Your task to perform on an android device: uninstall "Indeed Job Search" Image 0: 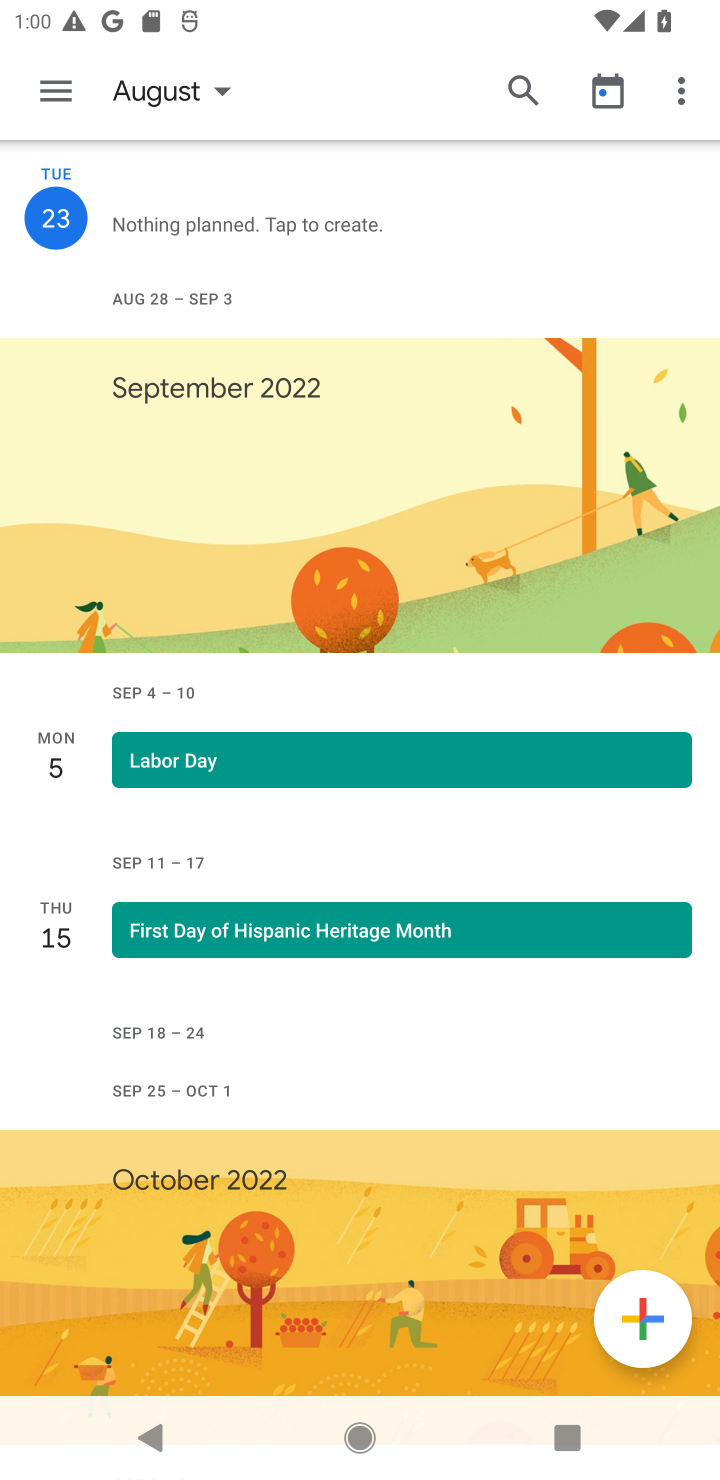
Step 0: press home button
Your task to perform on an android device: uninstall "Indeed Job Search" Image 1: 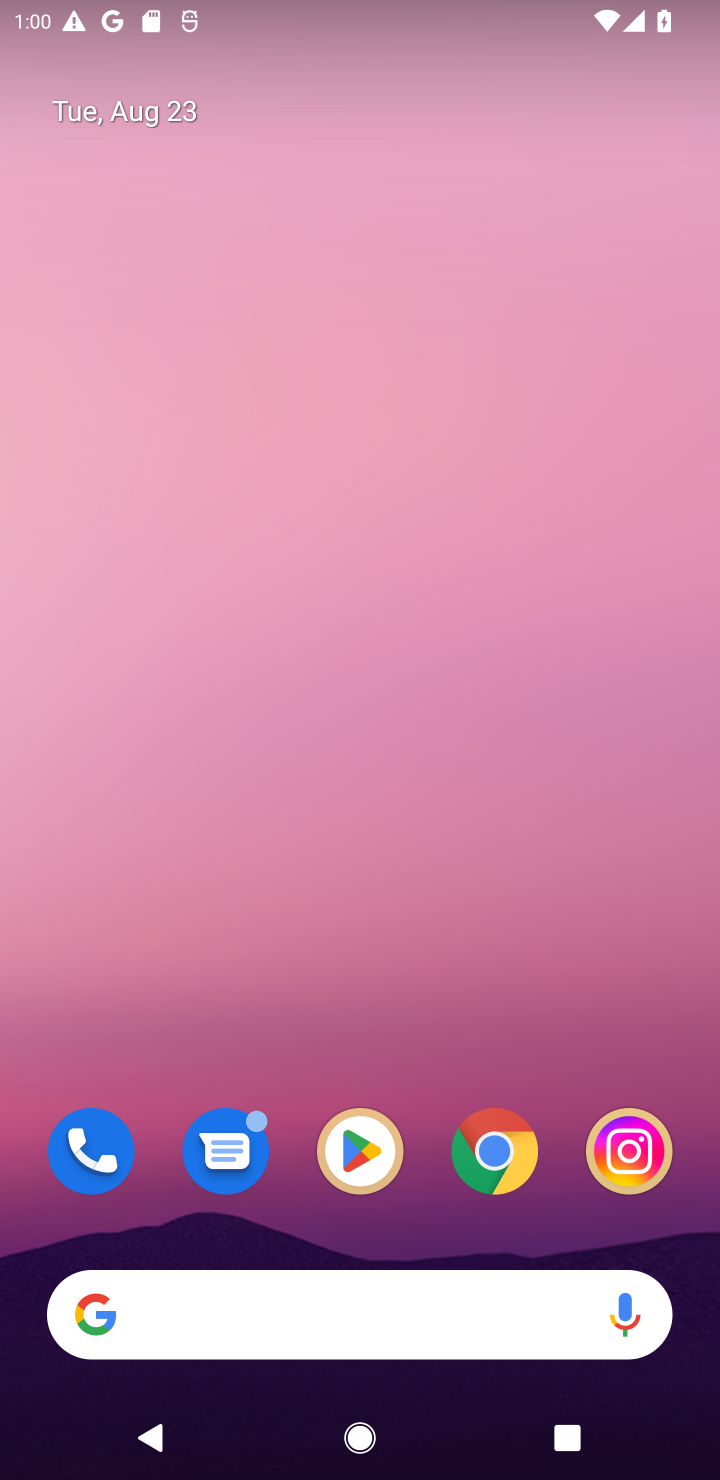
Step 1: click (343, 1135)
Your task to perform on an android device: uninstall "Indeed Job Search" Image 2: 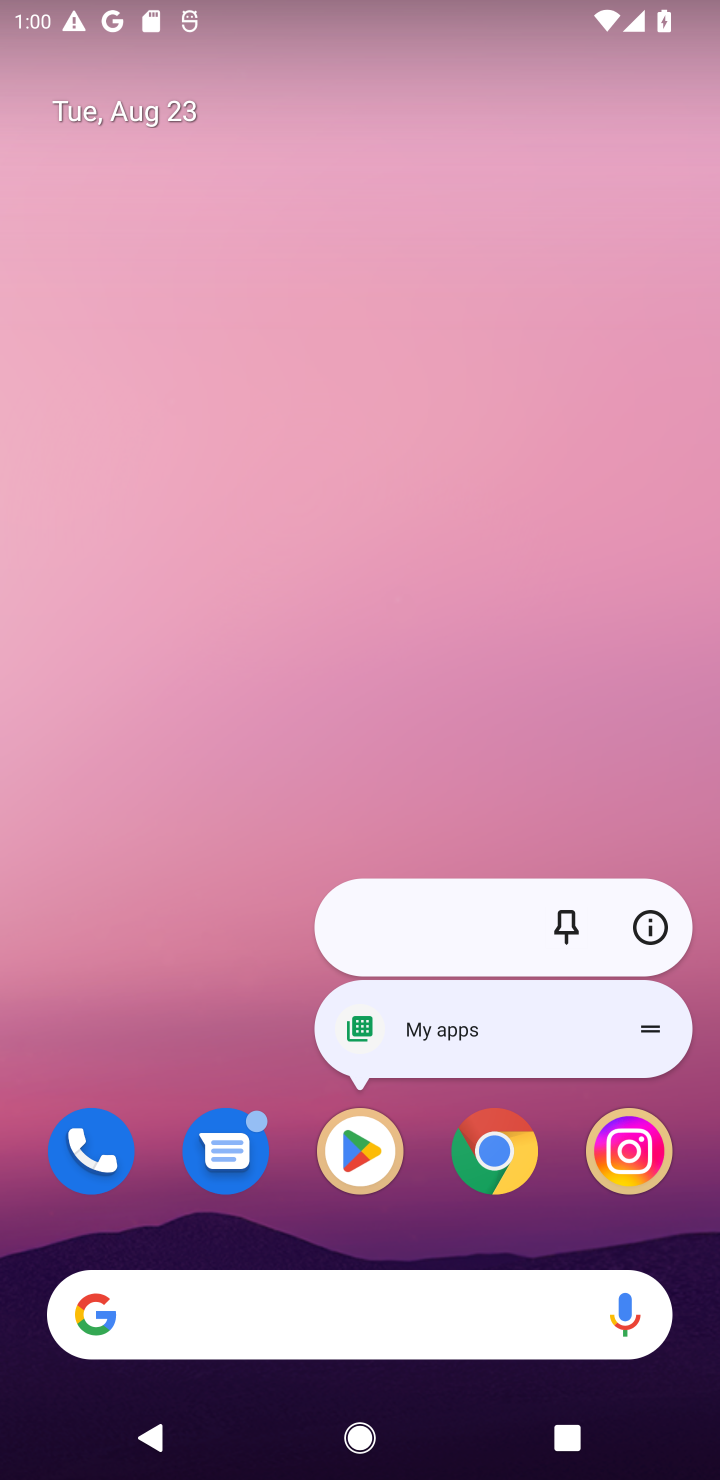
Step 2: click (349, 1156)
Your task to perform on an android device: uninstall "Indeed Job Search" Image 3: 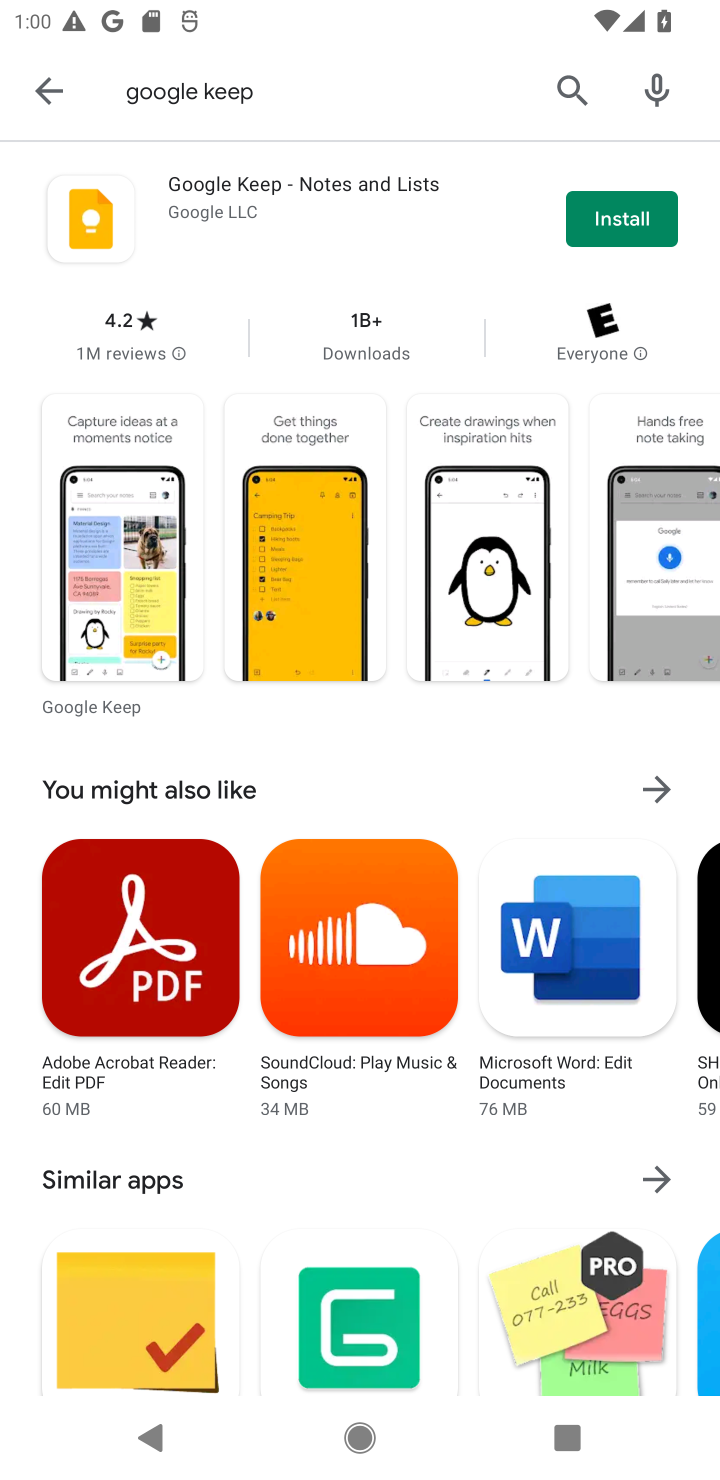
Step 3: click (576, 99)
Your task to perform on an android device: uninstall "Indeed Job Search" Image 4: 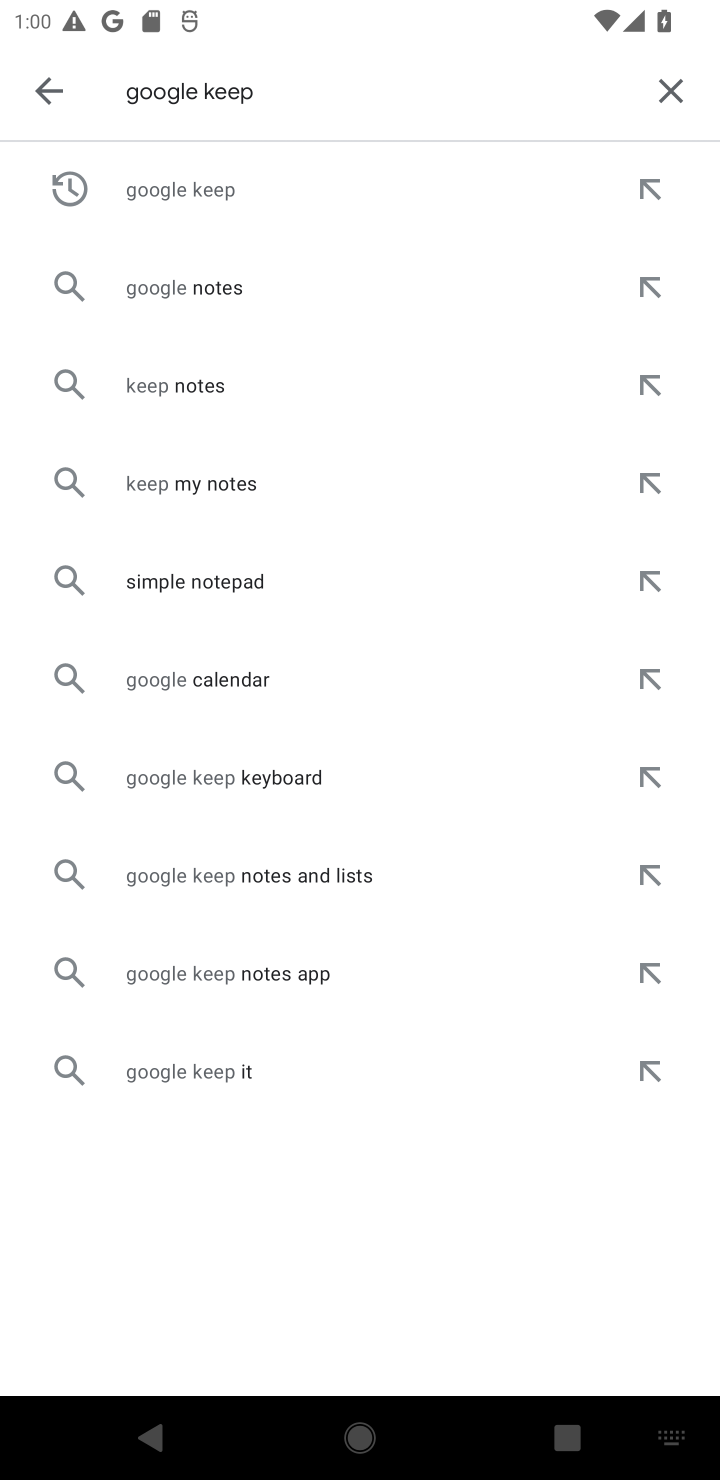
Step 4: click (672, 99)
Your task to perform on an android device: uninstall "Indeed Job Search" Image 5: 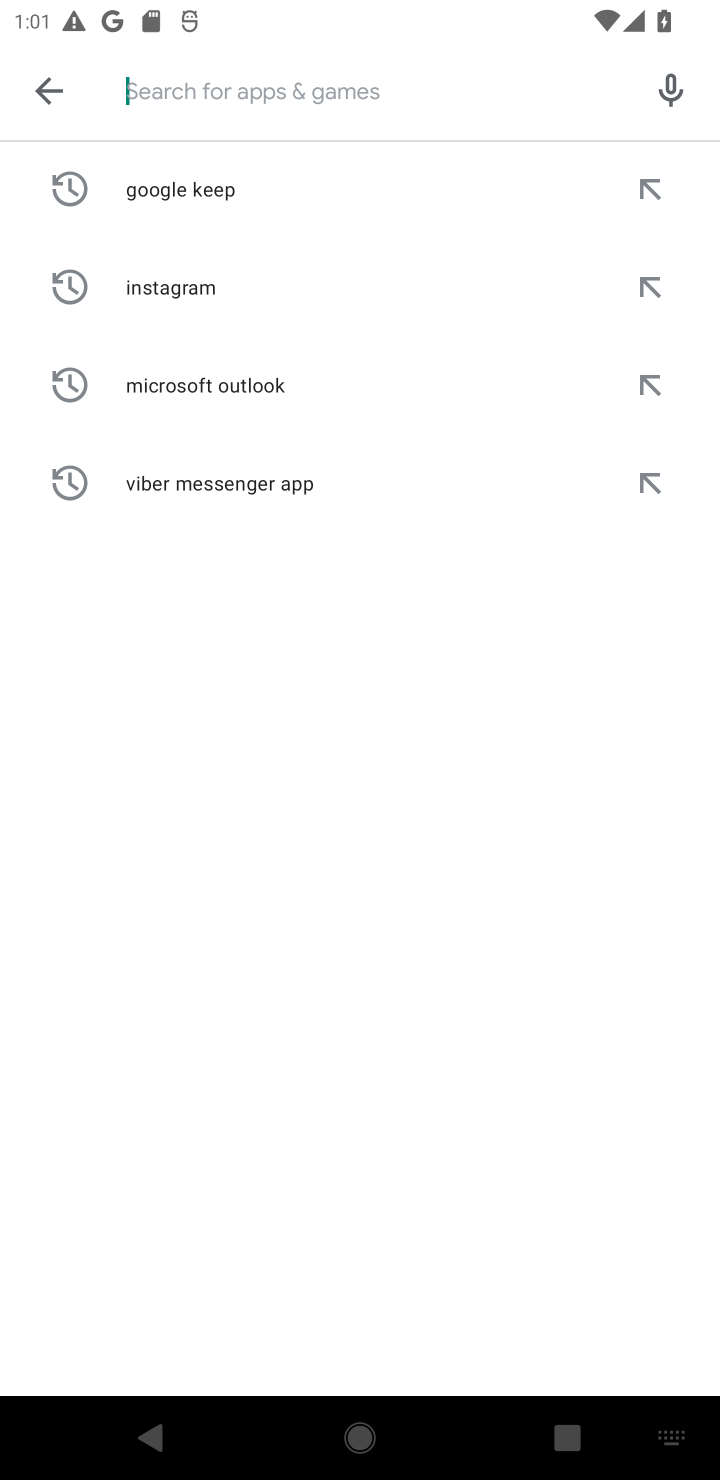
Step 5: type "Indeed Job Search"
Your task to perform on an android device: uninstall "Indeed Job Search" Image 6: 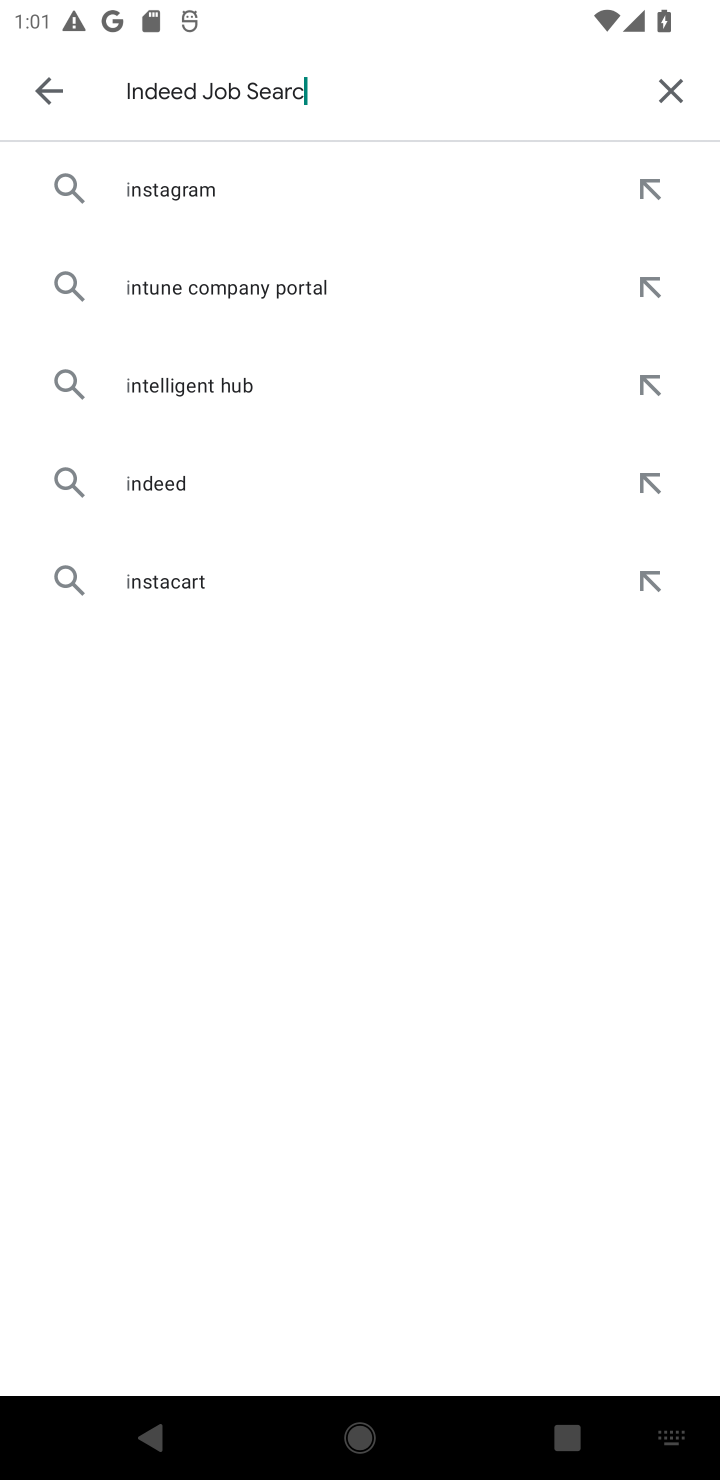
Step 6: type ""
Your task to perform on an android device: uninstall "Indeed Job Search" Image 7: 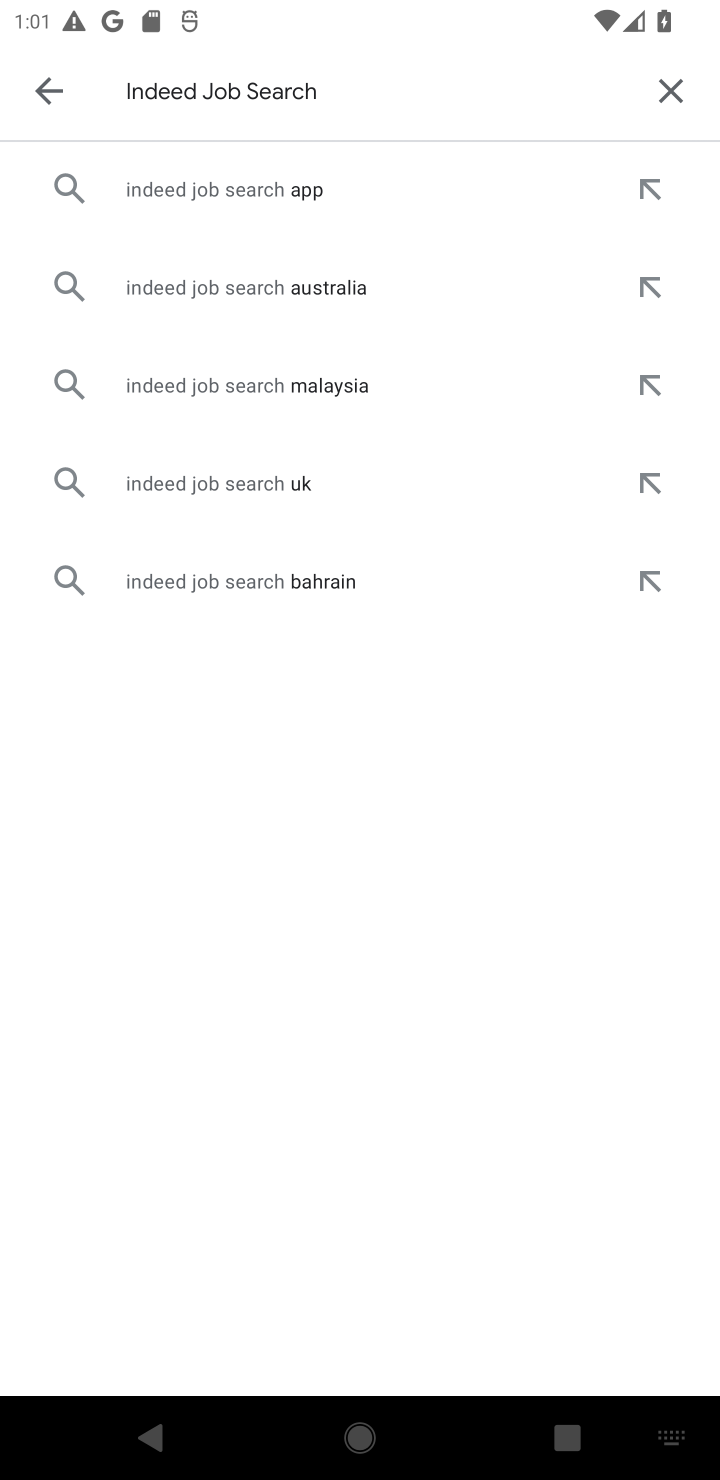
Step 7: click (310, 205)
Your task to perform on an android device: uninstall "Indeed Job Search" Image 8: 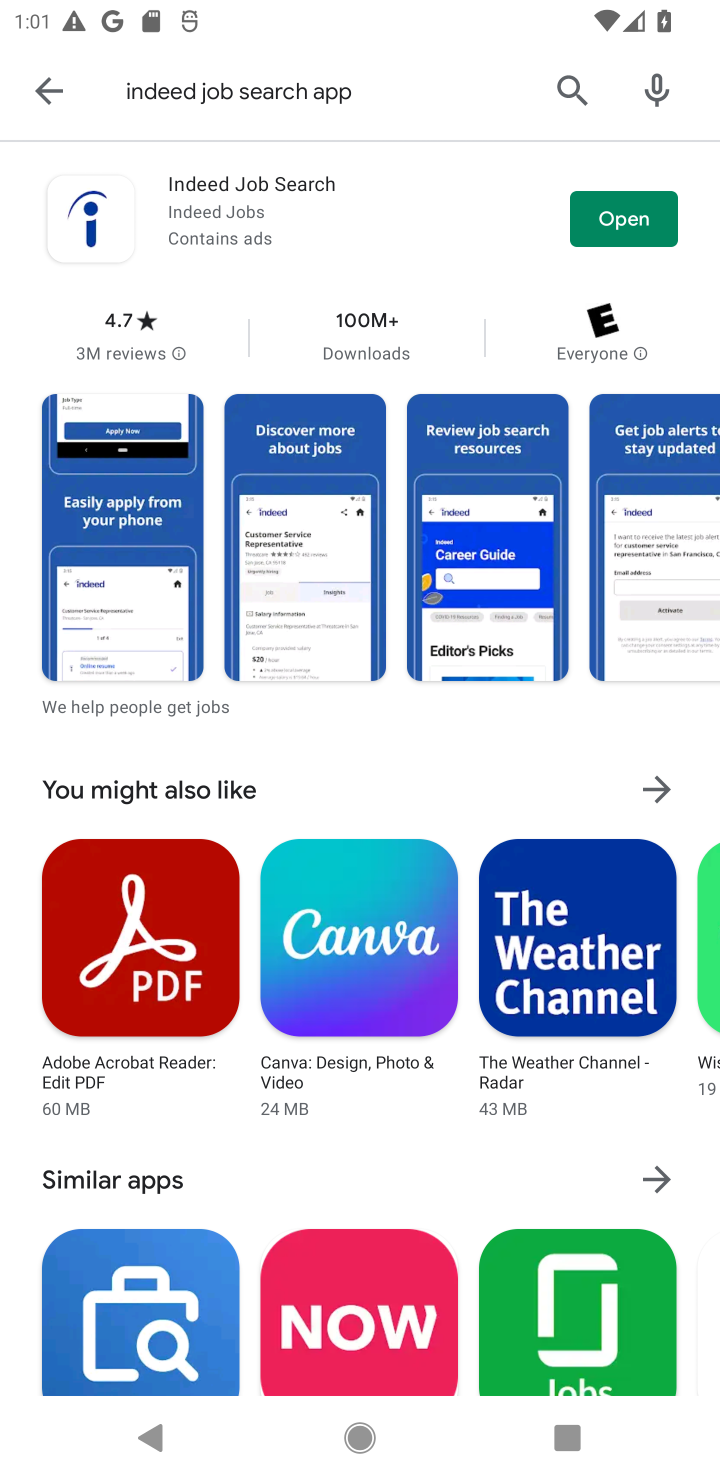
Step 8: click (310, 205)
Your task to perform on an android device: uninstall "Indeed Job Search" Image 9: 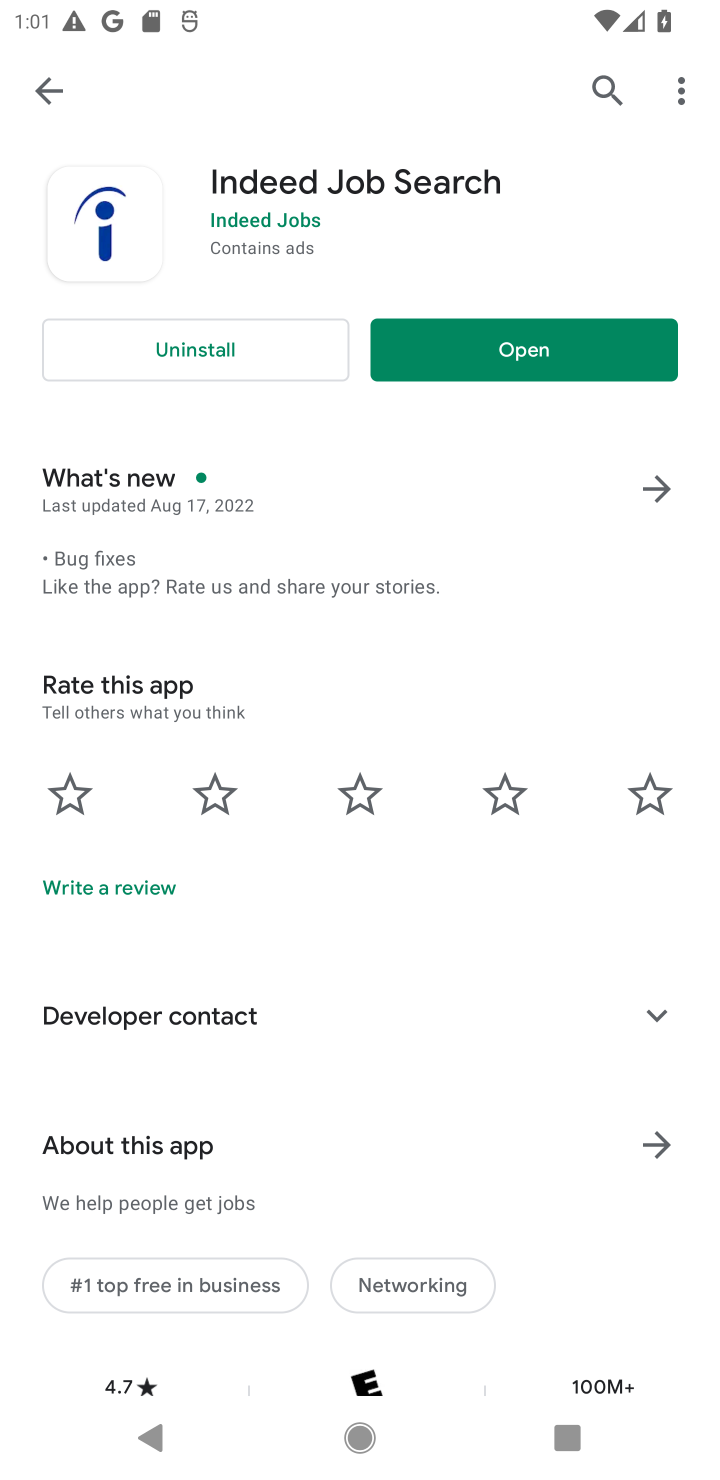
Step 9: click (242, 318)
Your task to perform on an android device: uninstall "Indeed Job Search" Image 10: 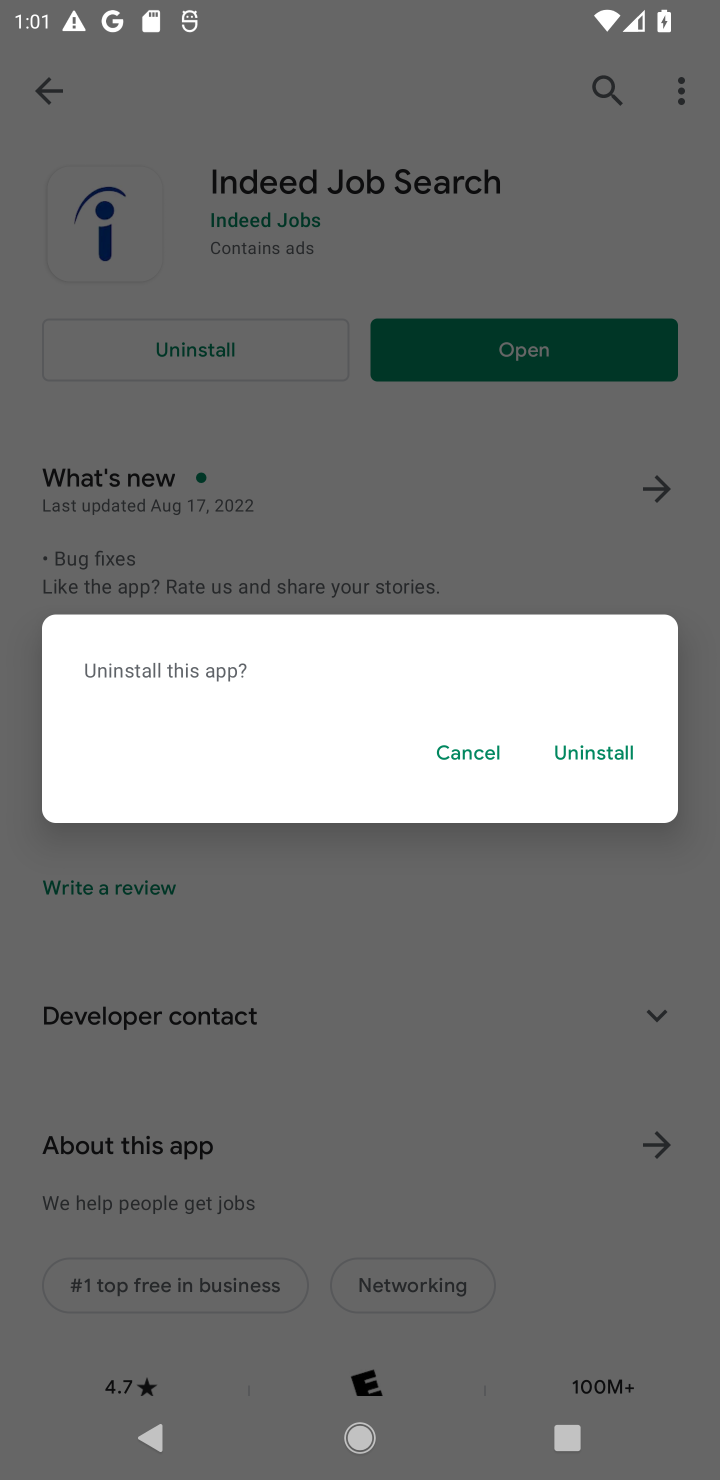
Step 10: click (573, 757)
Your task to perform on an android device: uninstall "Indeed Job Search" Image 11: 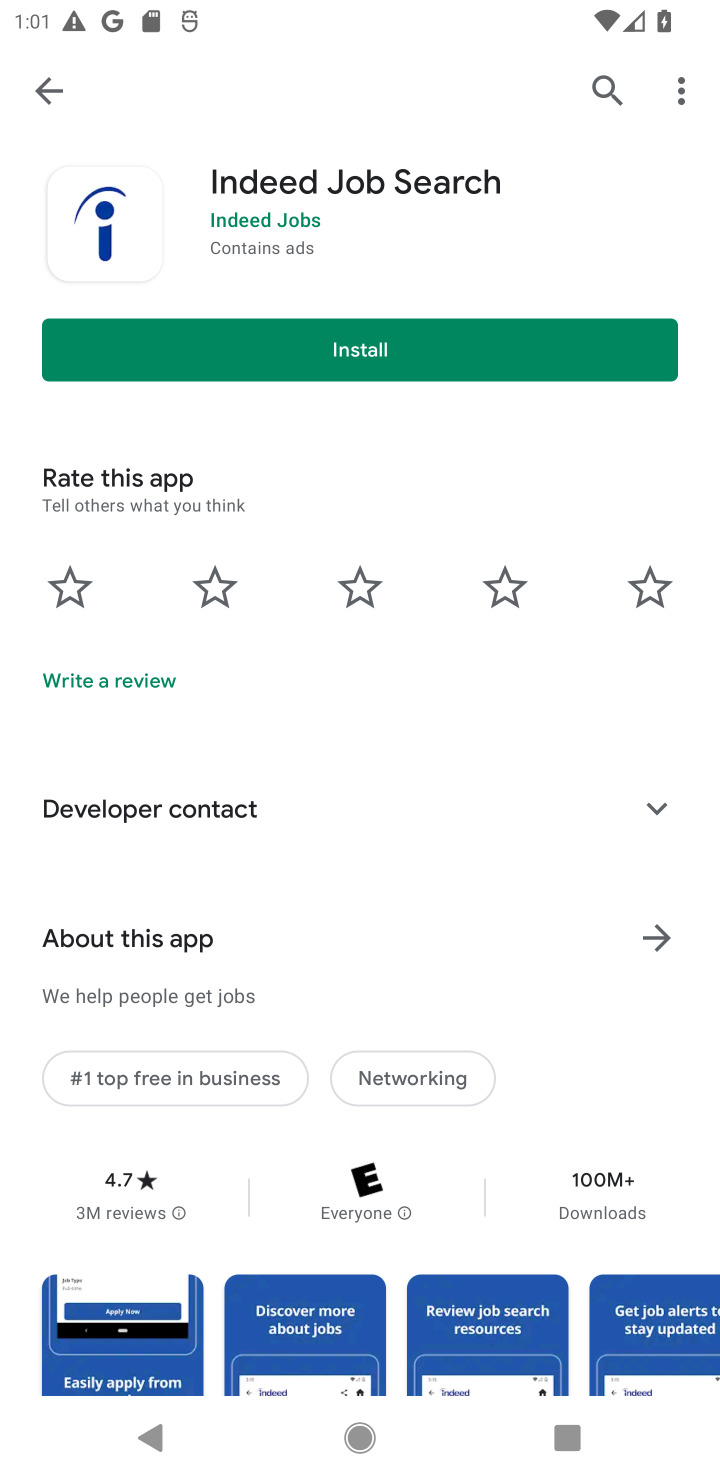
Step 11: task complete